Your task to perform on an android device: check out phone information Image 0: 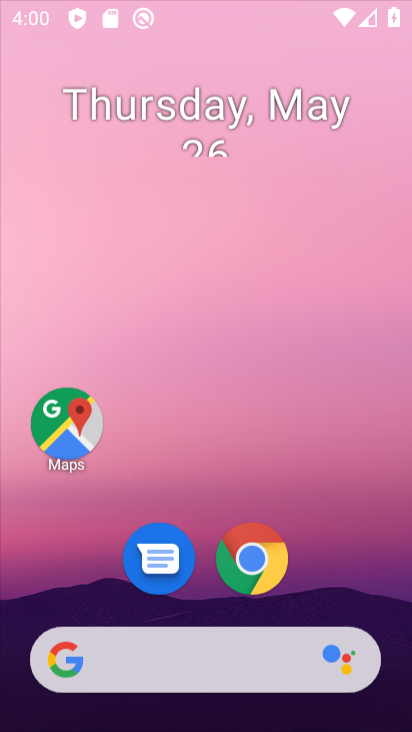
Step 0: click (212, 66)
Your task to perform on an android device: check out phone information Image 1: 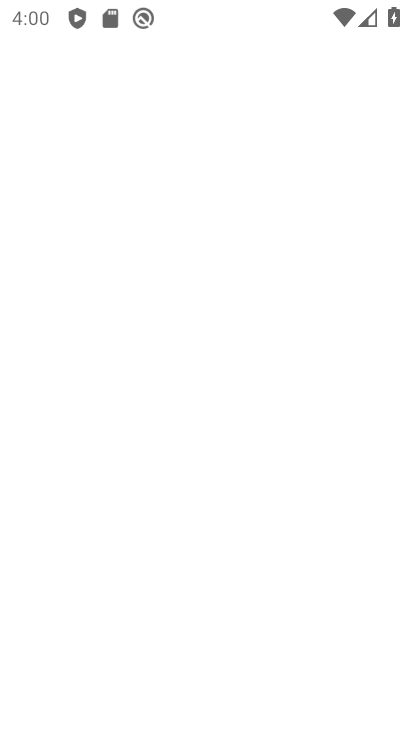
Step 1: press home button
Your task to perform on an android device: check out phone information Image 2: 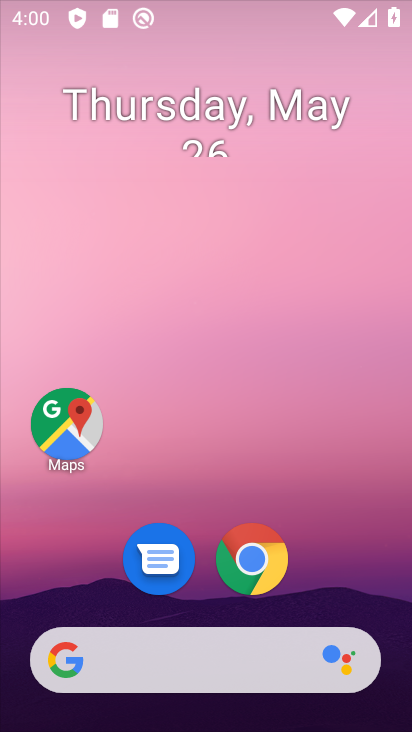
Step 2: drag from (343, 491) to (204, 27)
Your task to perform on an android device: check out phone information Image 3: 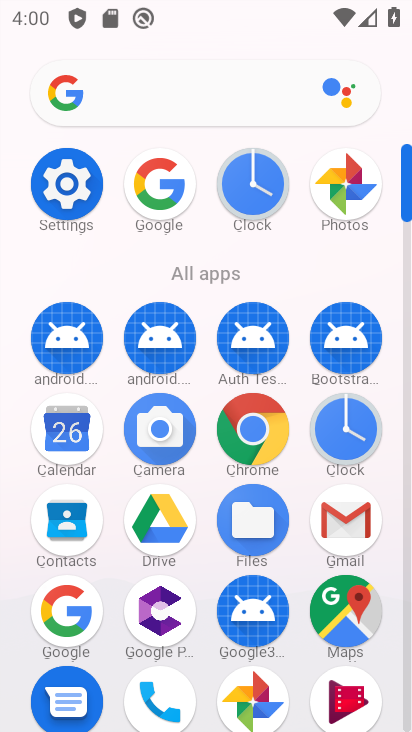
Step 3: click (76, 187)
Your task to perform on an android device: check out phone information Image 4: 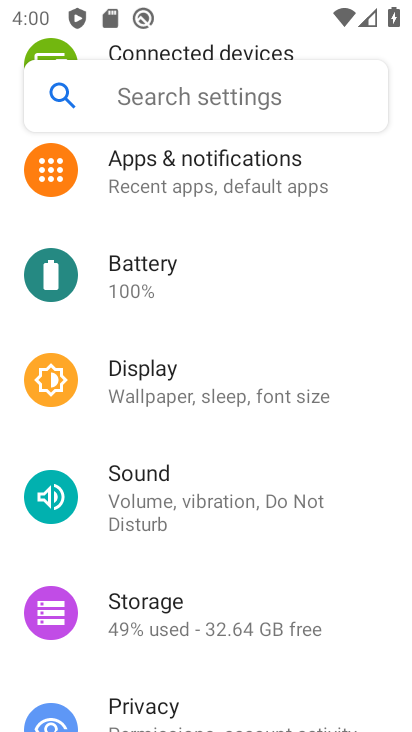
Step 4: drag from (235, 659) to (197, 4)
Your task to perform on an android device: check out phone information Image 5: 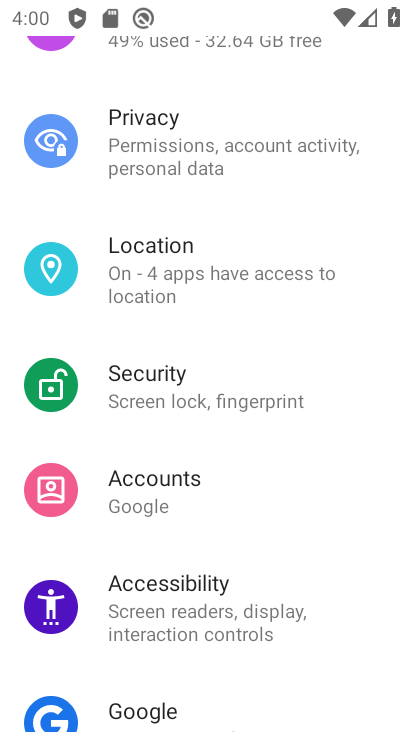
Step 5: drag from (246, 665) to (235, 25)
Your task to perform on an android device: check out phone information Image 6: 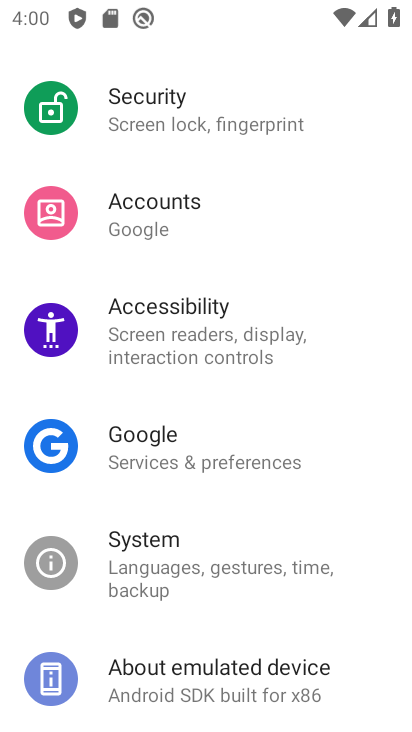
Step 6: click (260, 689)
Your task to perform on an android device: check out phone information Image 7: 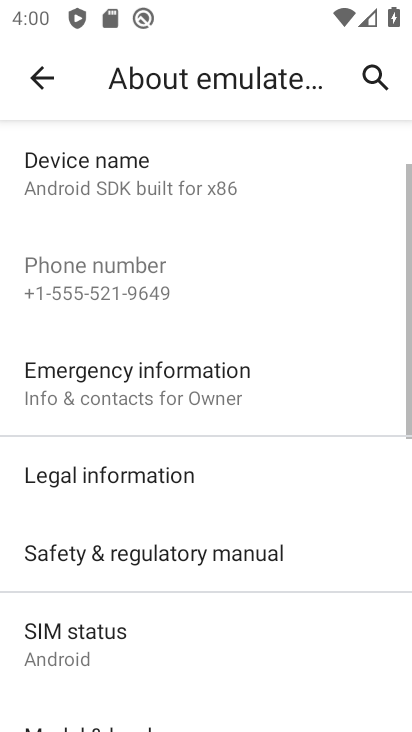
Step 7: task complete